Your task to perform on an android device: When is my next appointment? Image 0: 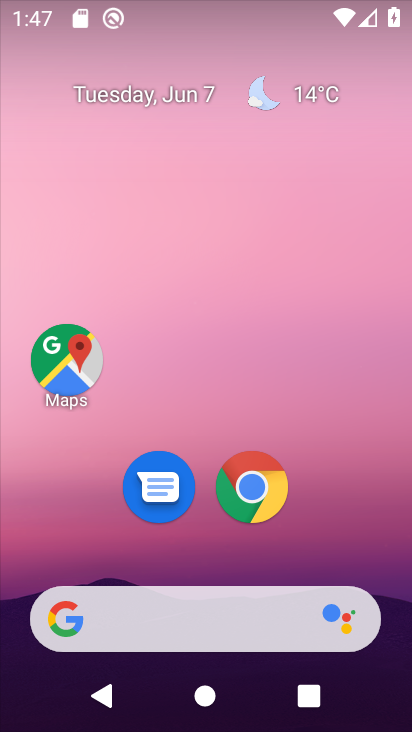
Step 0: drag from (248, 556) to (308, 495)
Your task to perform on an android device: When is my next appointment? Image 1: 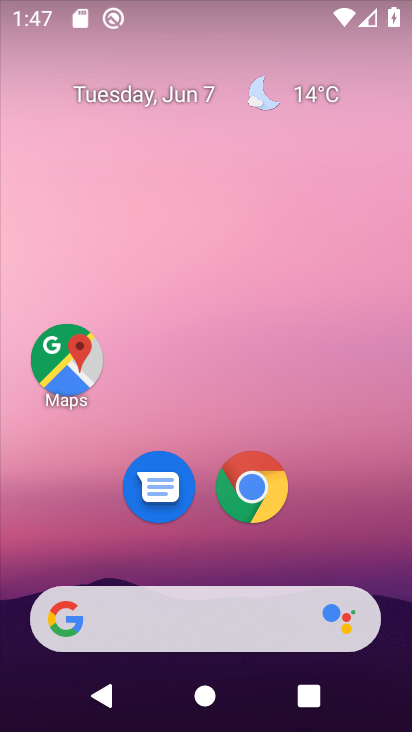
Step 1: drag from (191, 564) to (12, 574)
Your task to perform on an android device: When is my next appointment? Image 2: 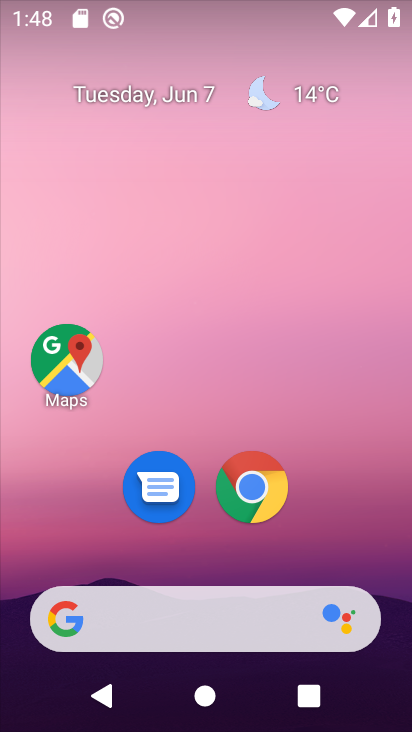
Step 2: drag from (206, 586) to (190, 14)
Your task to perform on an android device: When is my next appointment? Image 3: 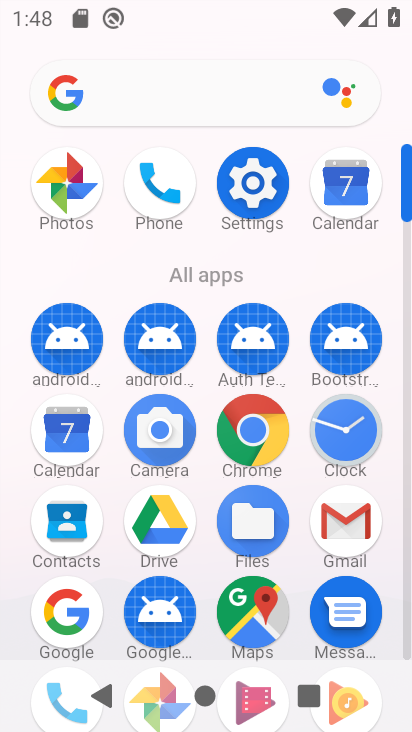
Step 3: click (64, 446)
Your task to perform on an android device: When is my next appointment? Image 4: 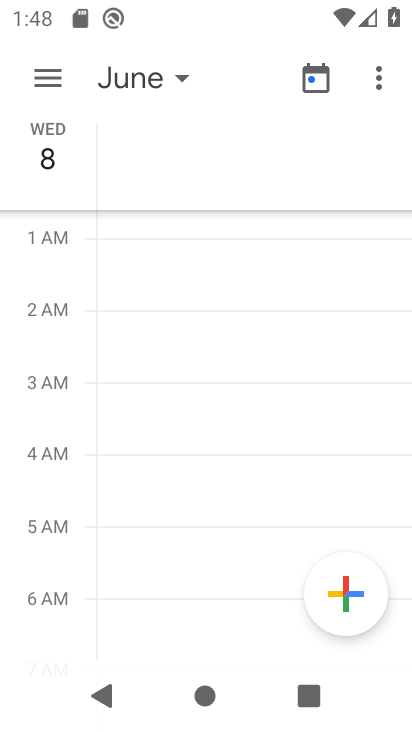
Step 4: click (37, 83)
Your task to perform on an android device: When is my next appointment? Image 5: 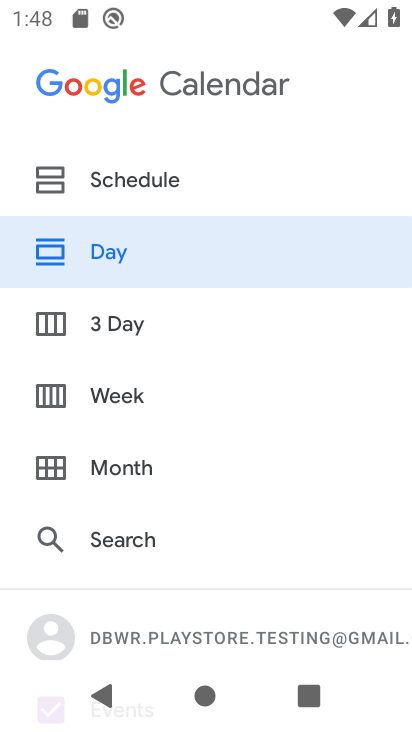
Step 5: task complete